Your task to perform on an android device: toggle data saver in the chrome app Image 0: 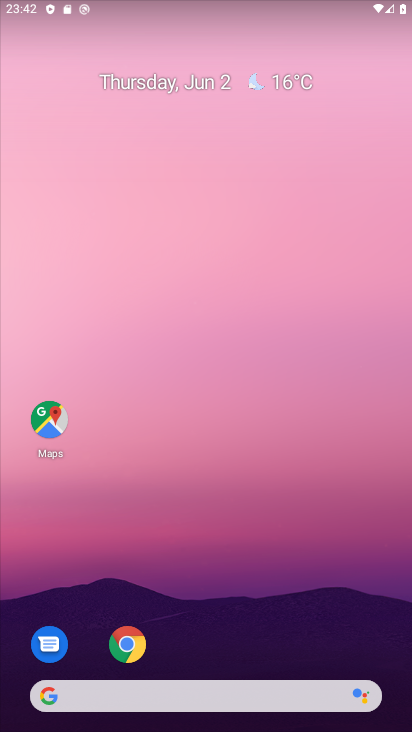
Step 0: drag from (197, 614) to (231, 310)
Your task to perform on an android device: toggle data saver in the chrome app Image 1: 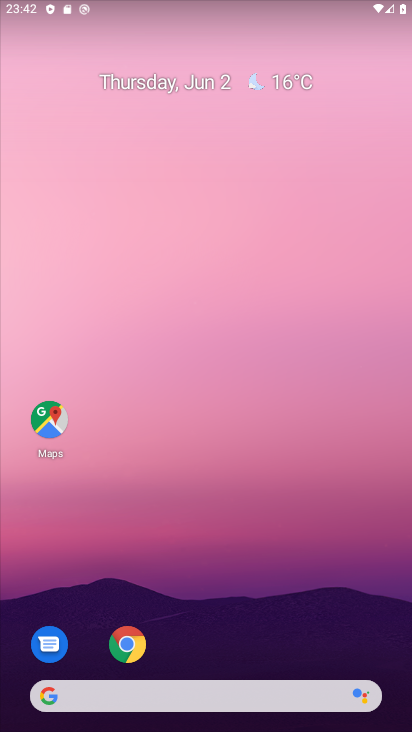
Step 1: drag from (203, 632) to (154, 212)
Your task to perform on an android device: toggle data saver in the chrome app Image 2: 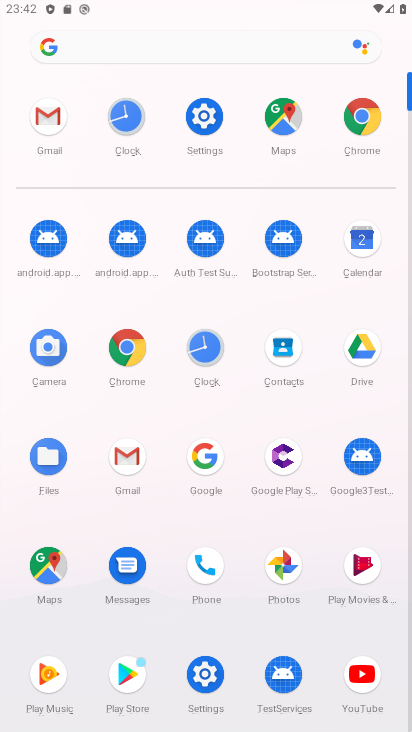
Step 2: click (365, 120)
Your task to perform on an android device: toggle data saver in the chrome app Image 3: 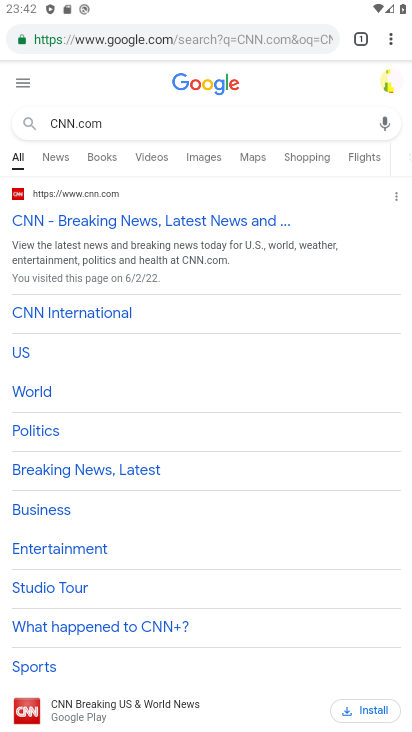
Step 3: click (396, 44)
Your task to perform on an android device: toggle data saver in the chrome app Image 4: 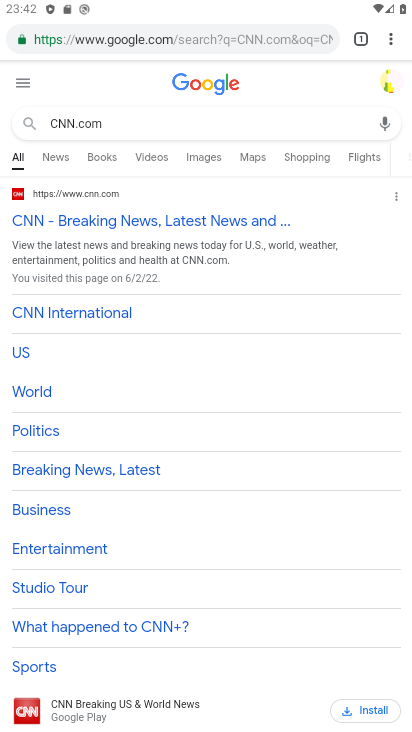
Step 4: click (393, 39)
Your task to perform on an android device: toggle data saver in the chrome app Image 5: 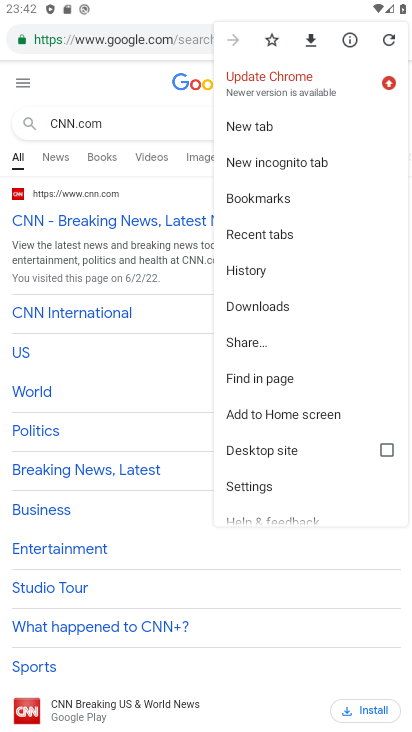
Step 5: click (274, 492)
Your task to perform on an android device: toggle data saver in the chrome app Image 6: 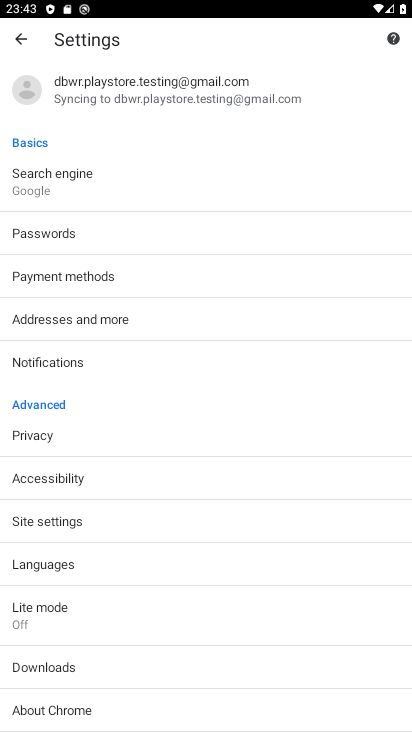
Step 6: drag from (130, 591) to (149, 399)
Your task to perform on an android device: toggle data saver in the chrome app Image 7: 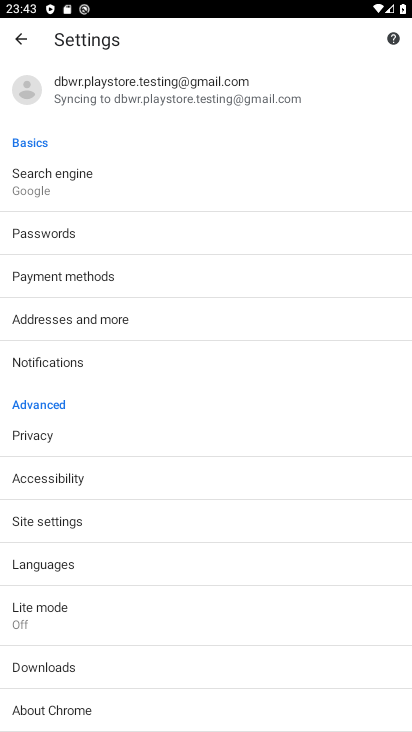
Step 7: click (21, 609)
Your task to perform on an android device: toggle data saver in the chrome app Image 8: 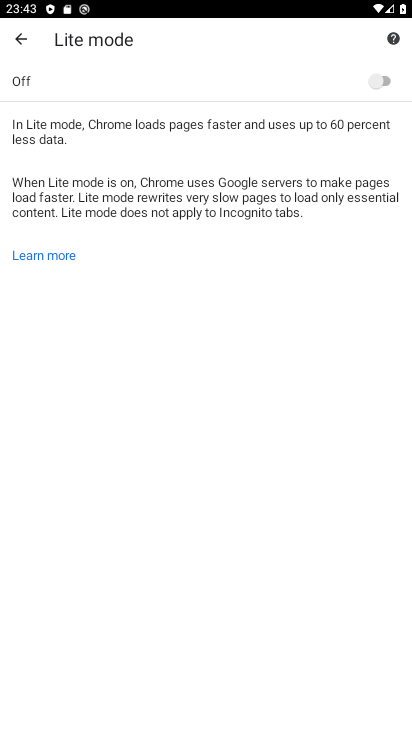
Step 8: click (381, 74)
Your task to perform on an android device: toggle data saver in the chrome app Image 9: 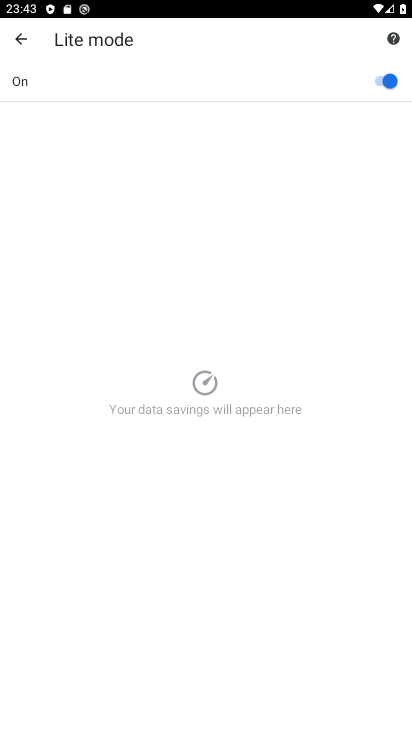
Step 9: task complete